Your task to perform on an android device: Go to Yahoo.com Image 0: 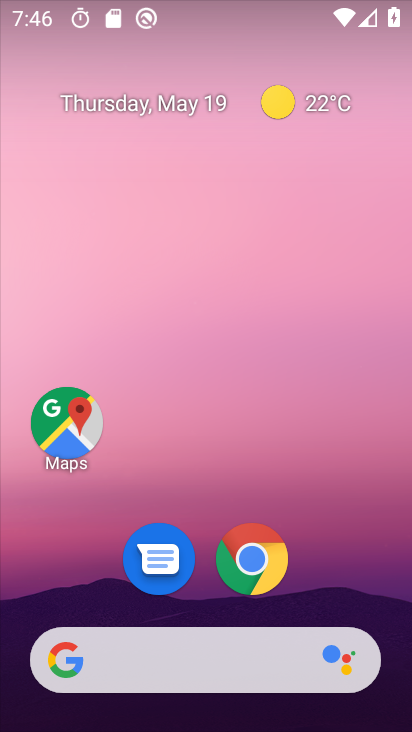
Step 0: click (255, 552)
Your task to perform on an android device: Go to Yahoo.com Image 1: 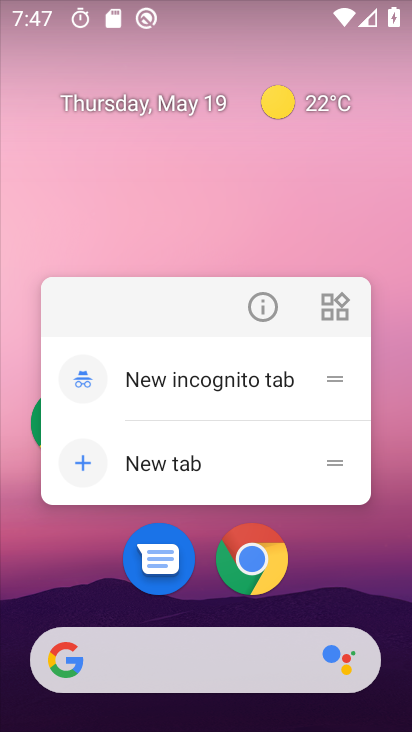
Step 1: click (237, 550)
Your task to perform on an android device: Go to Yahoo.com Image 2: 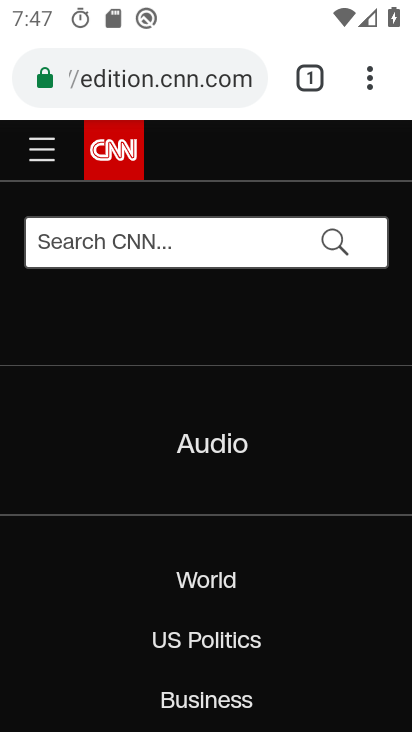
Step 2: click (148, 82)
Your task to perform on an android device: Go to Yahoo.com Image 3: 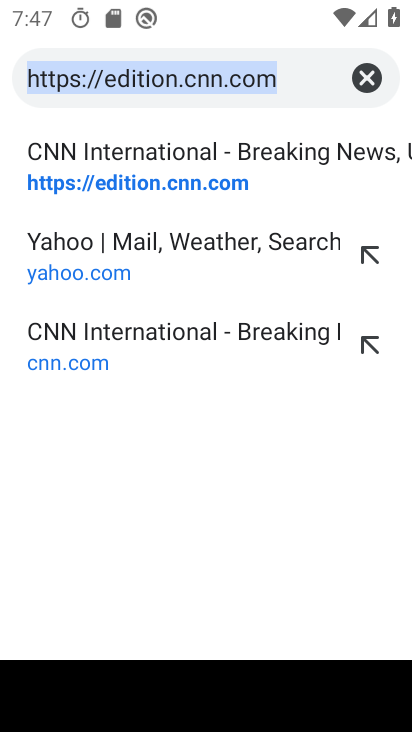
Step 3: type "Yahoo.com"
Your task to perform on an android device: Go to Yahoo.com Image 4: 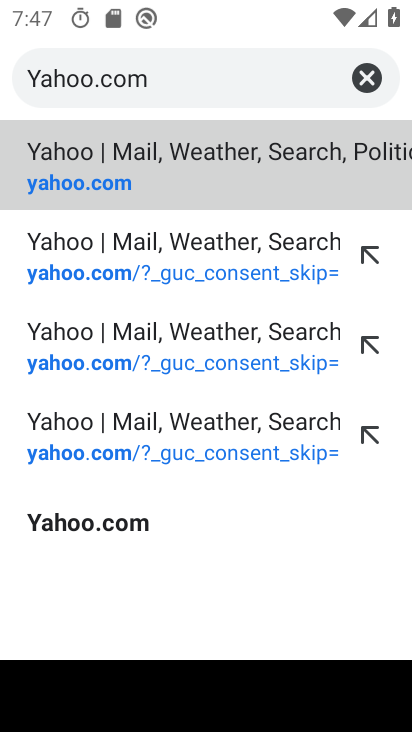
Step 4: click (218, 152)
Your task to perform on an android device: Go to Yahoo.com Image 5: 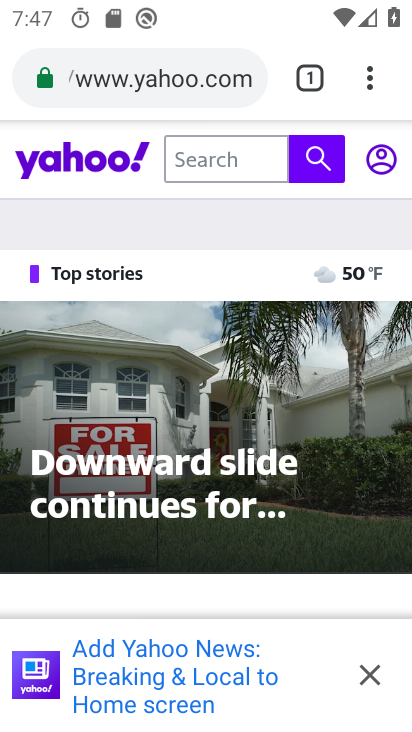
Step 5: task complete